Your task to perform on an android device: Open Wikipedia Image 0: 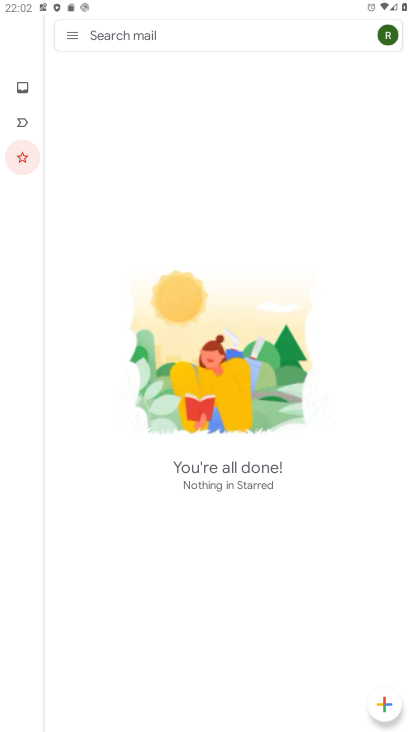
Step 0: press home button
Your task to perform on an android device: Open Wikipedia Image 1: 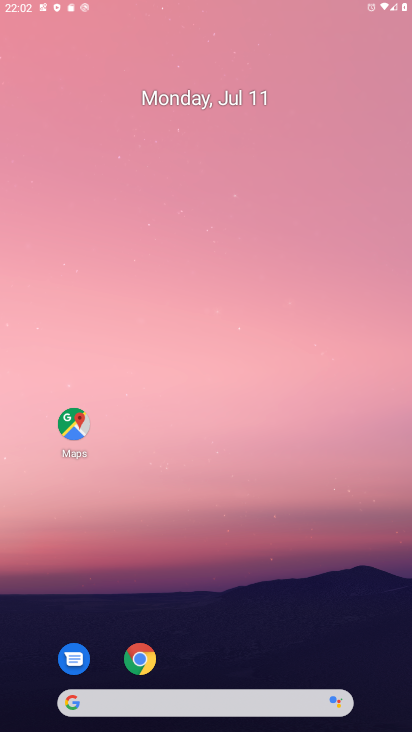
Step 1: drag from (213, 645) to (259, 126)
Your task to perform on an android device: Open Wikipedia Image 2: 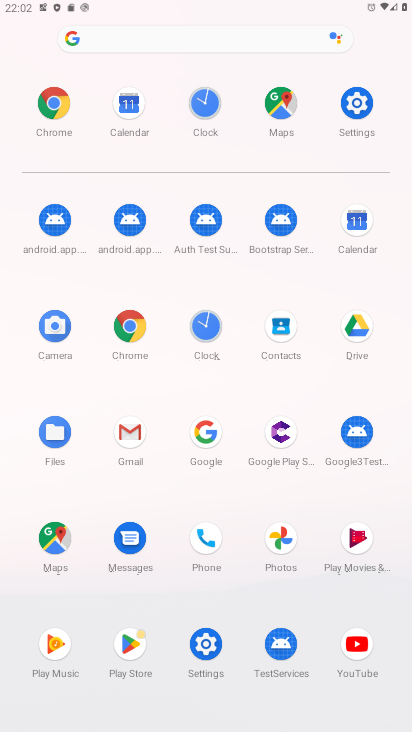
Step 2: click (186, 39)
Your task to perform on an android device: Open Wikipedia Image 3: 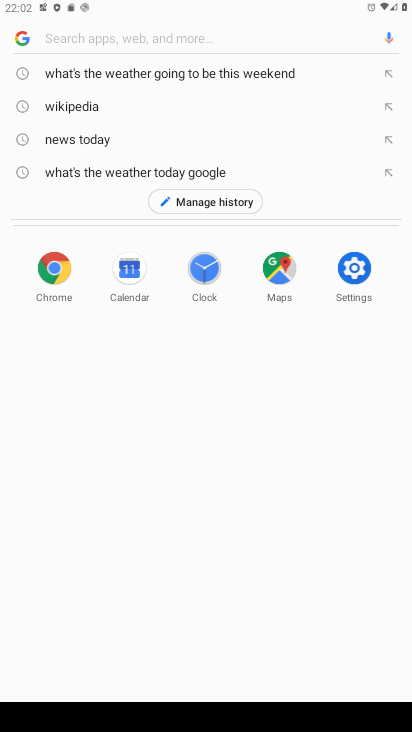
Step 3: click (67, 104)
Your task to perform on an android device: Open Wikipedia Image 4: 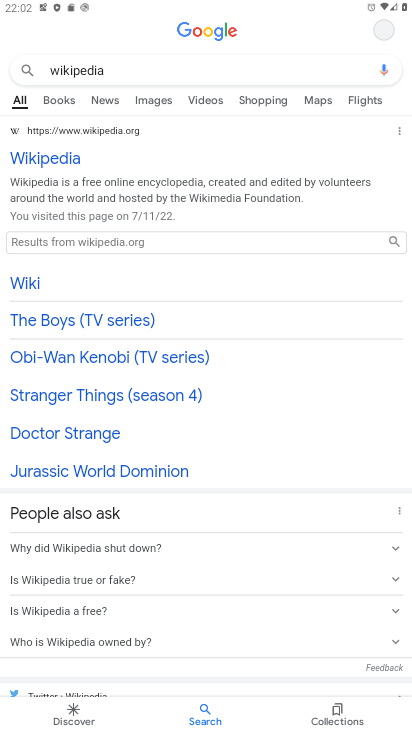
Step 4: drag from (165, 558) to (249, 191)
Your task to perform on an android device: Open Wikipedia Image 5: 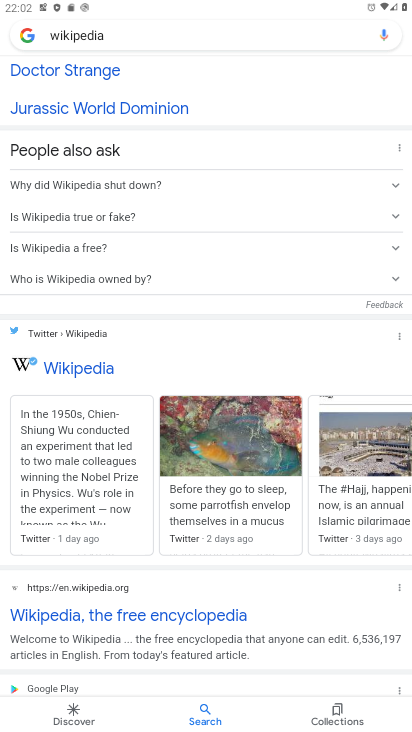
Step 5: drag from (182, 214) to (253, 725)
Your task to perform on an android device: Open Wikipedia Image 6: 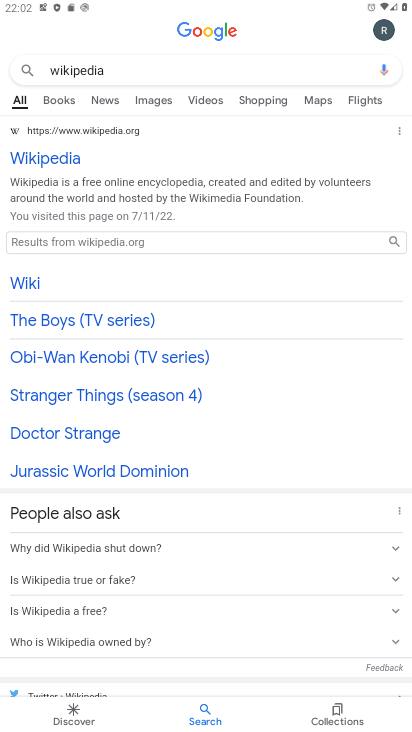
Step 6: click (46, 153)
Your task to perform on an android device: Open Wikipedia Image 7: 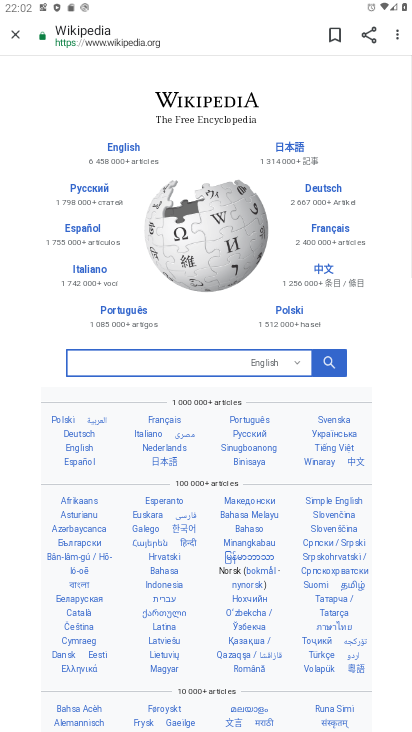
Step 7: task complete